Your task to perform on an android device: see sites visited before in the chrome app Image 0: 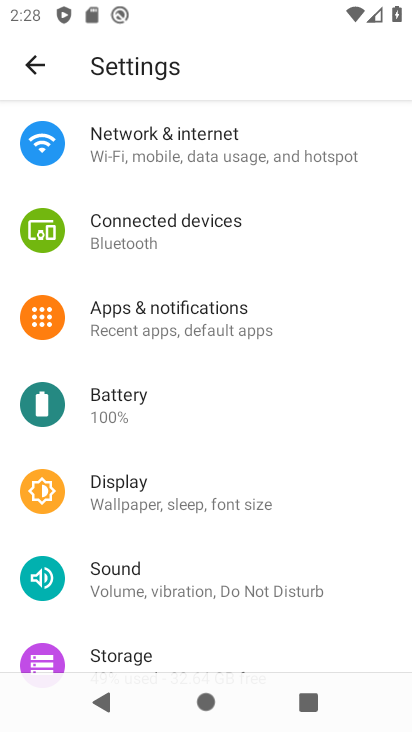
Step 0: press back button
Your task to perform on an android device: see sites visited before in the chrome app Image 1: 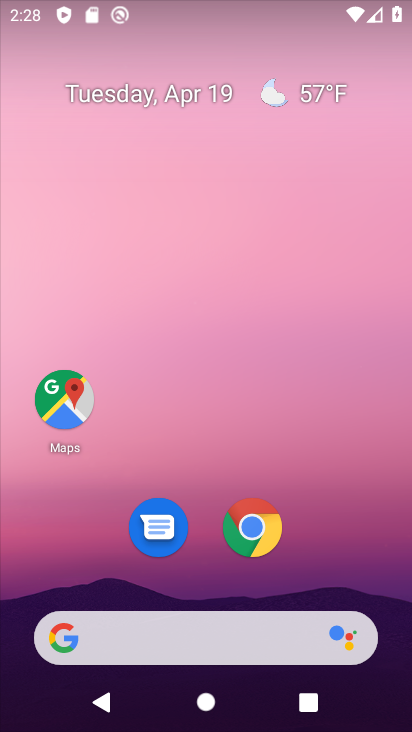
Step 1: click (232, 525)
Your task to perform on an android device: see sites visited before in the chrome app Image 2: 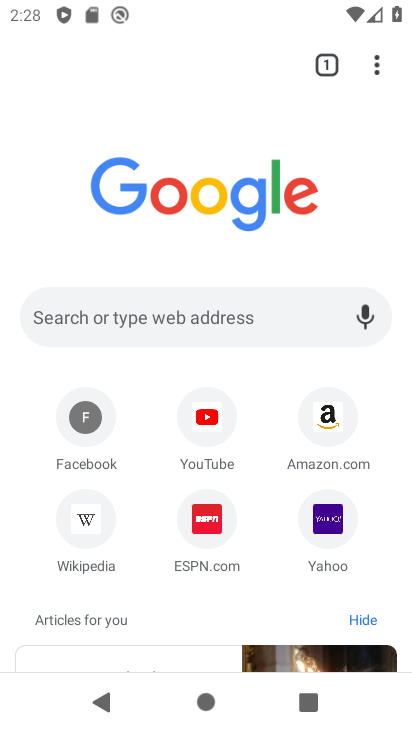
Step 2: click (377, 60)
Your task to perform on an android device: see sites visited before in the chrome app Image 3: 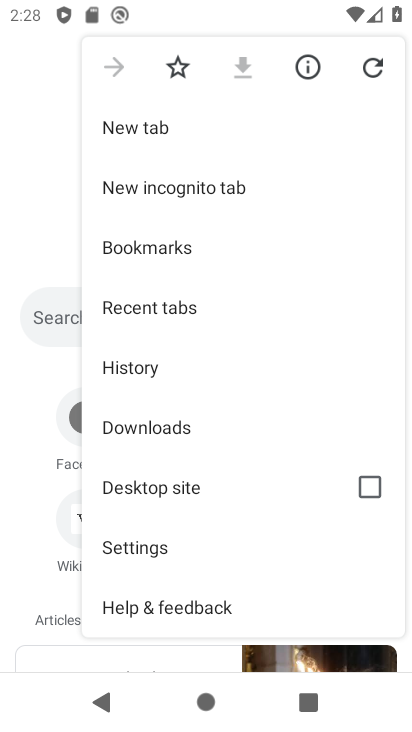
Step 3: click (181, 361)
Your task to perform on an android device: see sites visited before in the chrome app Image 4: 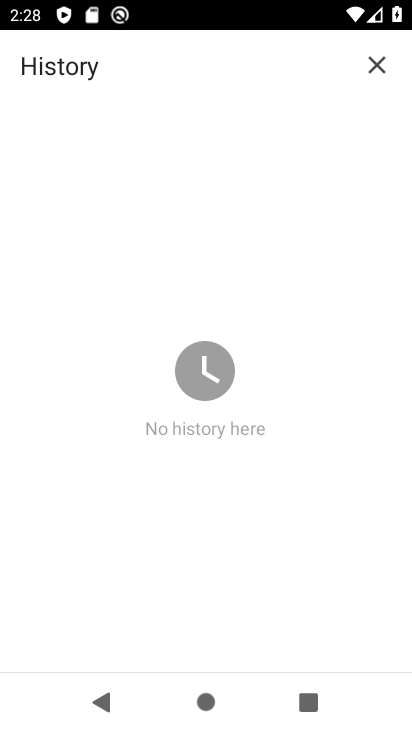
Step 4: task complete